Your task to perform on an android device: Open sound settings Image 0: 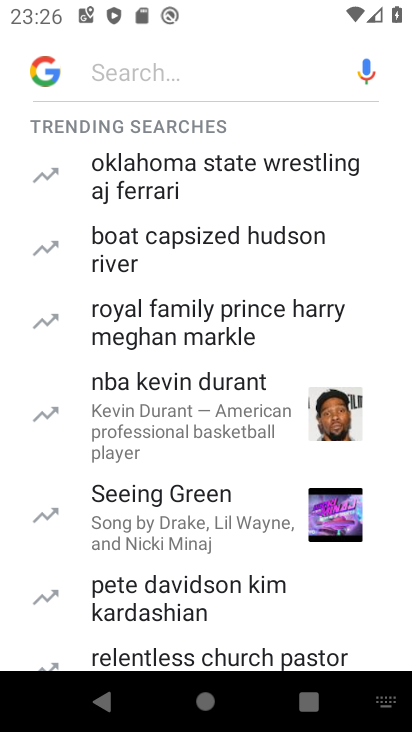
Step 0: press home button
Your task to perform on an android device: Open sound settings Image 1: 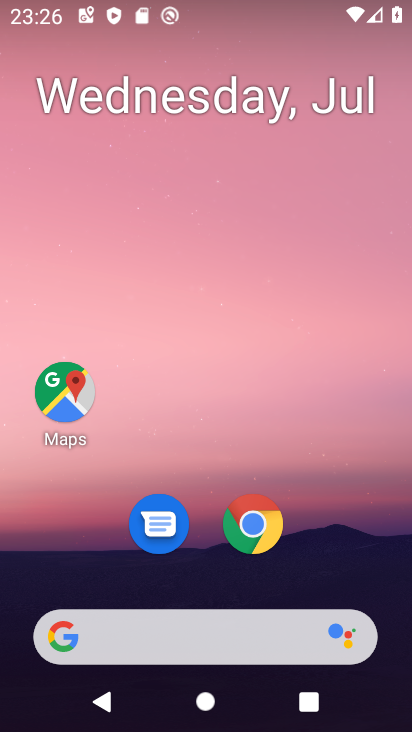
Step 1: drag from (221, 644) to (275, 146)
Your task to perform on an android device: Open sound settings Image 2: 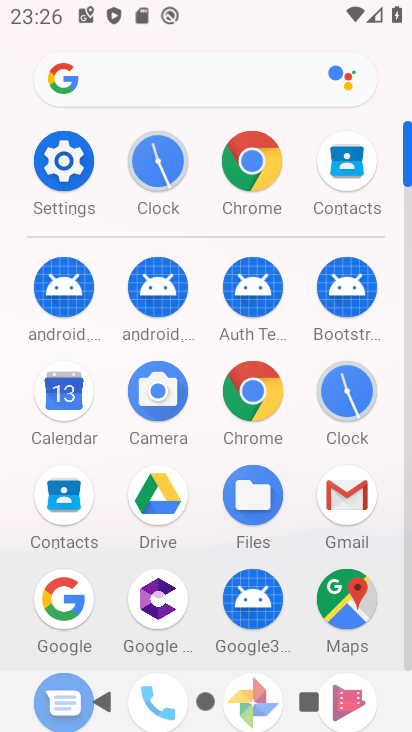
Step 2: click (63, 169)
Your task to perform on an android device: Open sound settings Image 3: 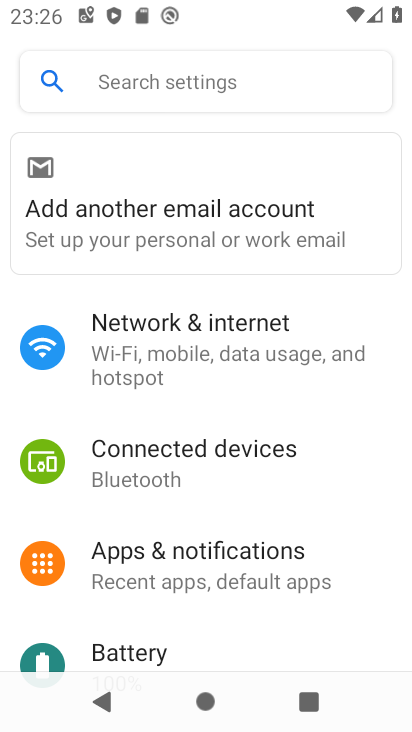
Step 3: drag from (235, 624) to (313, 287)
Your task to perform on an android device: Open sound settings Image 4: 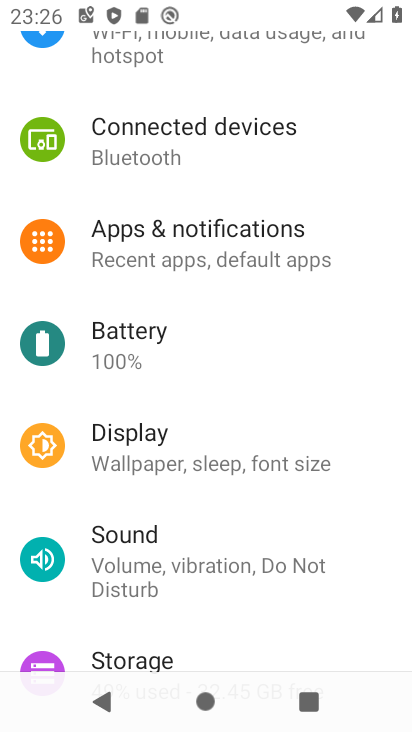
Step 4: click (173, 551)
Your task to perform on an android device: Open sound settings Image 5: 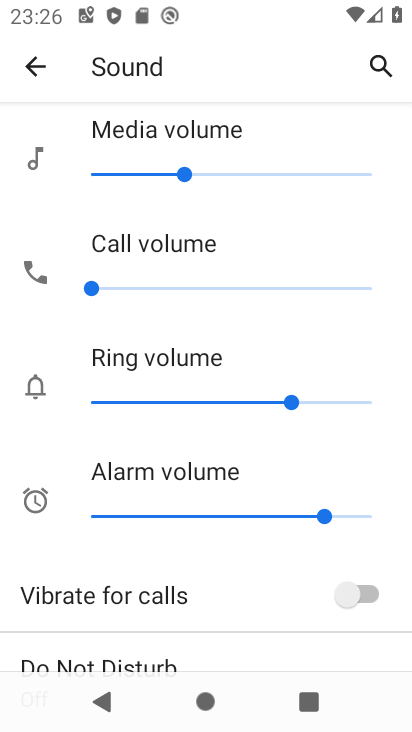
Step 5: task complete